Your task to perform on an android device: What's the news in Puerto Rico? Image 0: 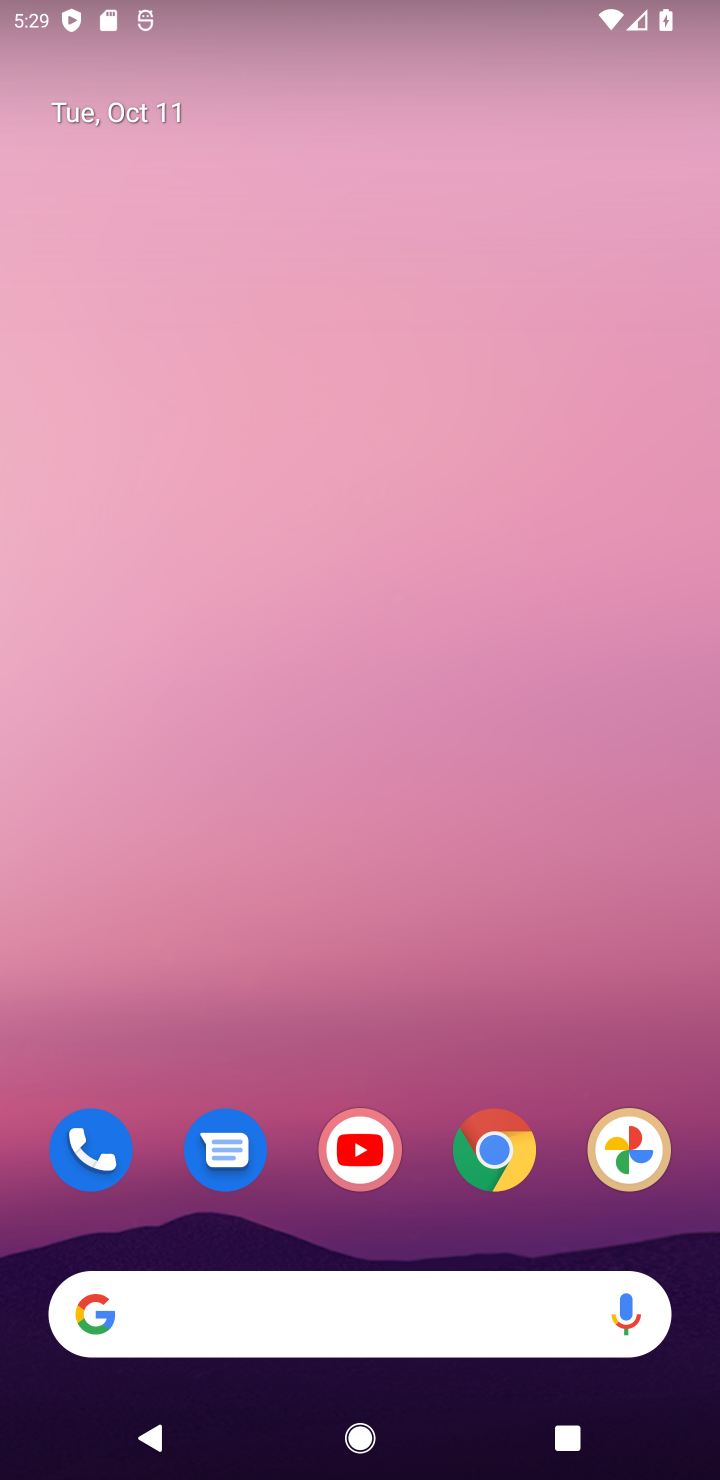
Step 0: click (493, 1170)
Your task to perform on an android device: What's the news in Puerto Rico? Image 1: 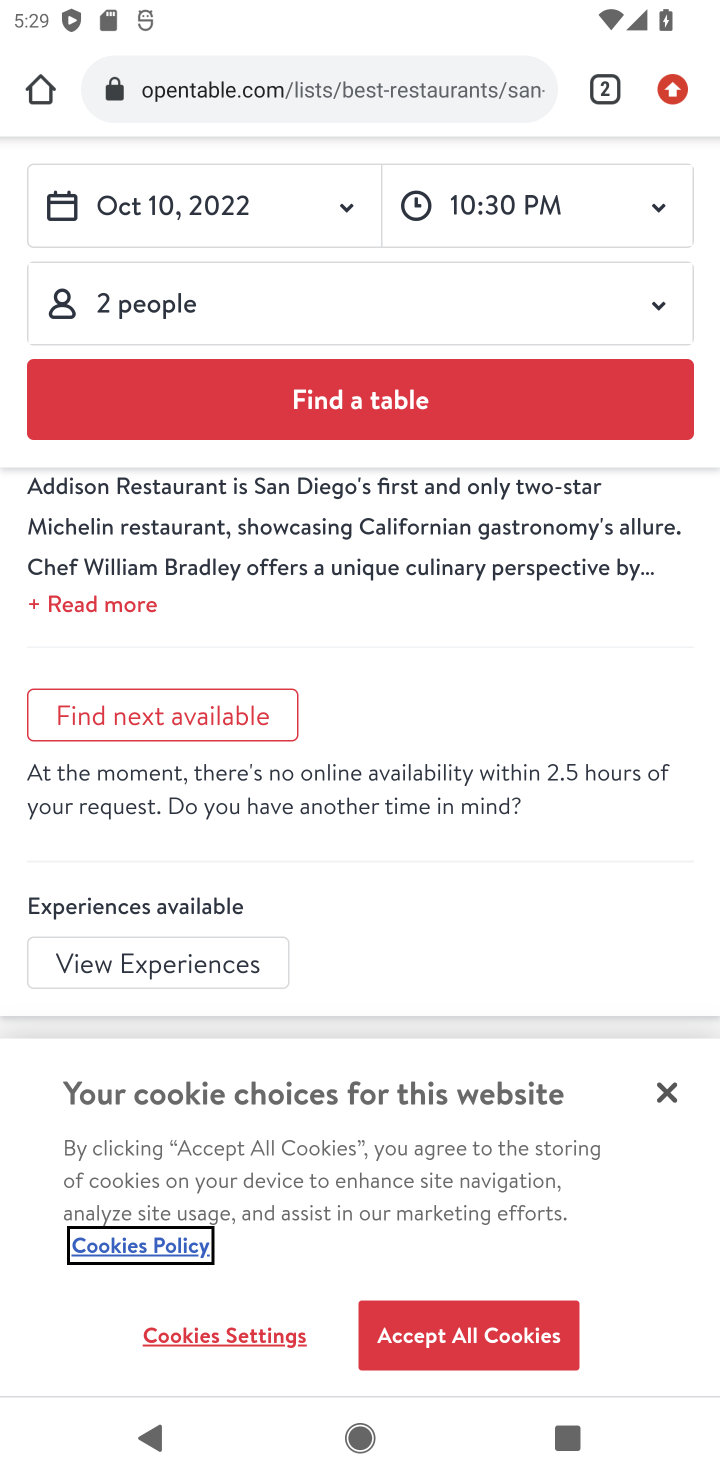
Step 1: click (274, 89)
Your task to perform on an android device: What's the news in Puerto Rico? Image 2: 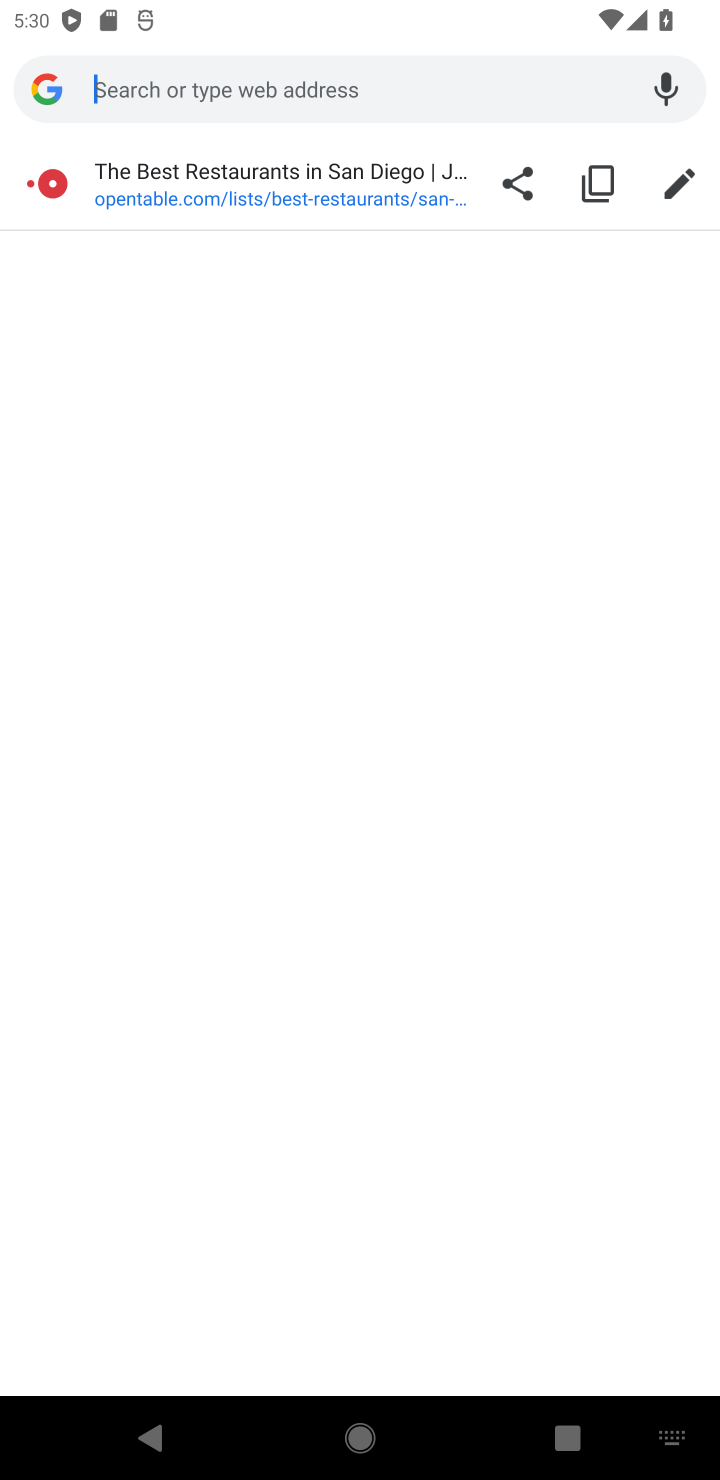
Step 2: type "Puerto Rico news"
Your task to perform on an android device: What's the news in Puerto Rico? Image 3: 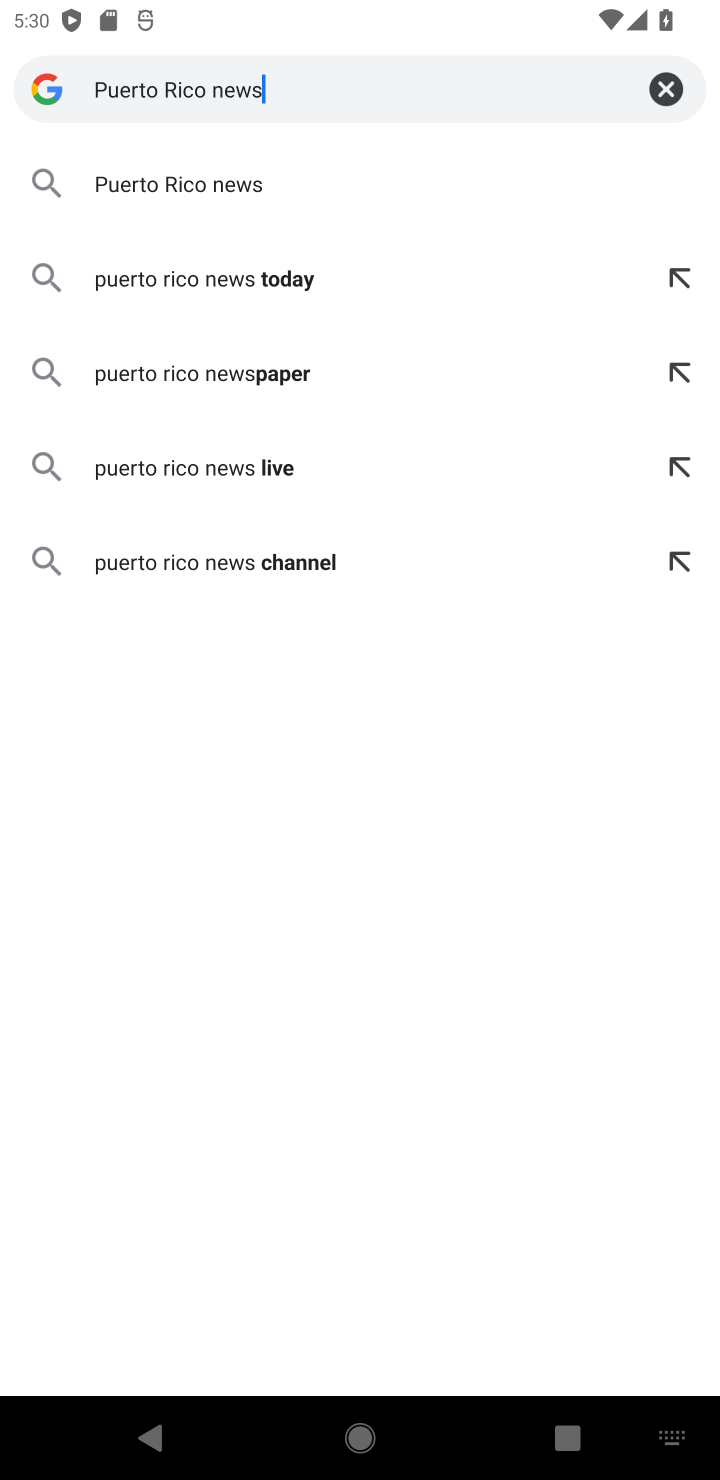
Step 3: click (183, 185)
Your task to perform on an android device: What's the news in Puerto Rico? Image 4: 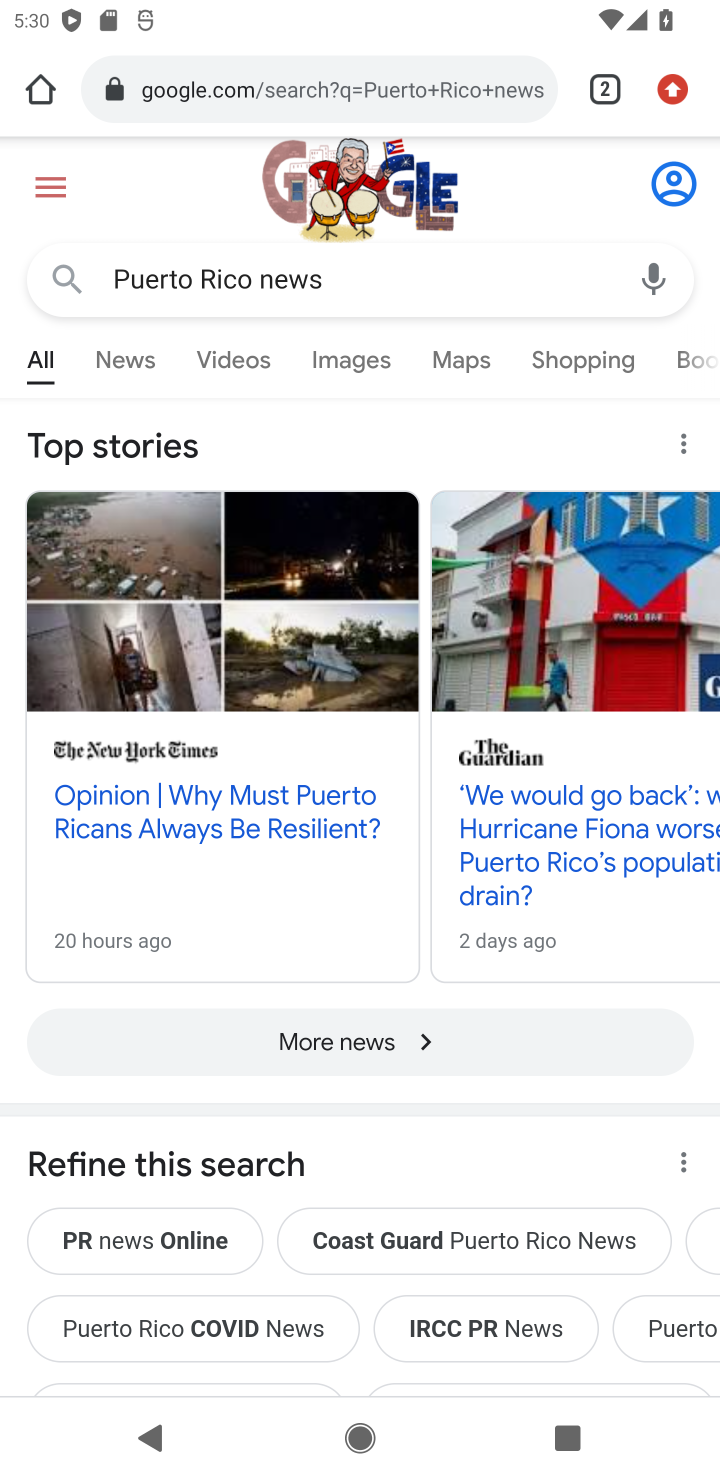
Step 4: click (111, 370)
Your task to perform on an android device: What's the news in Puerto Rico? Image 5: 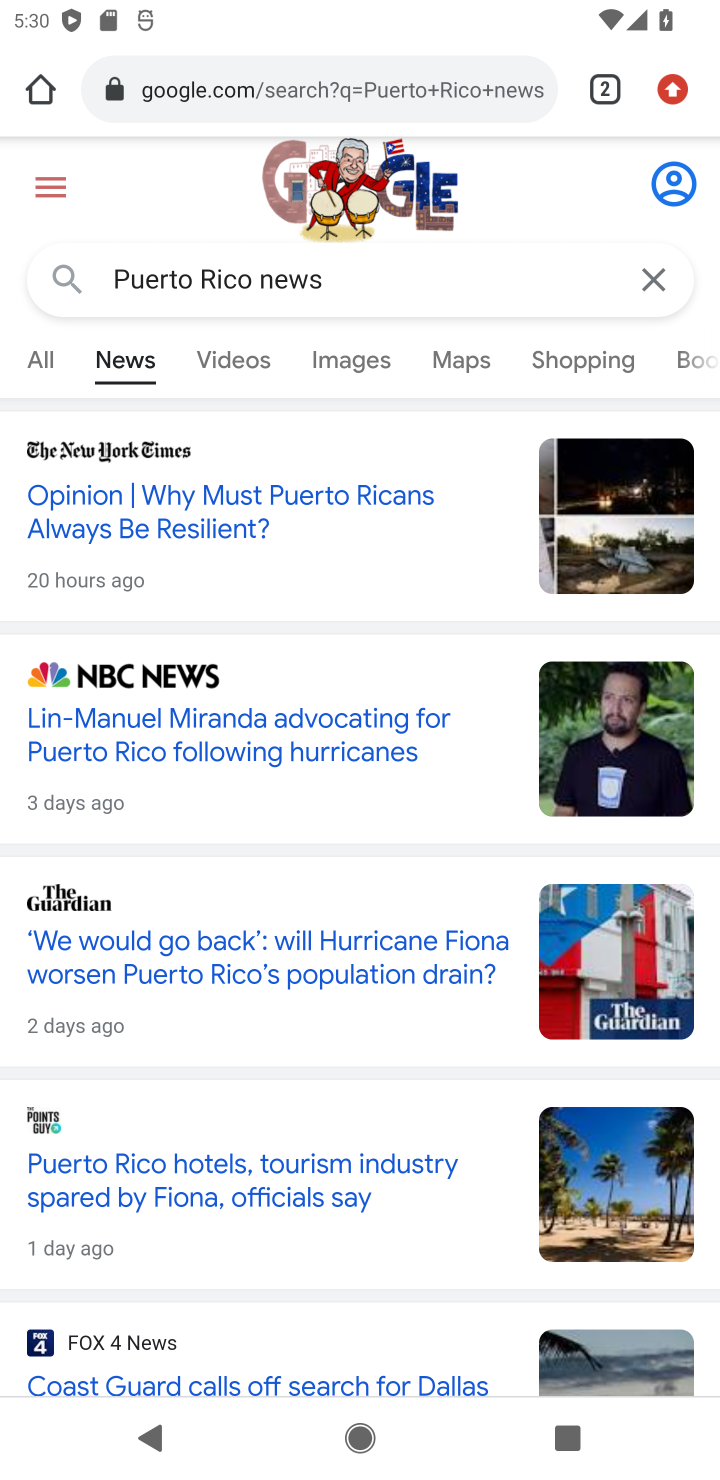
Step 5: click (196, 743)
Your task to perform on an android device: What's the news in Puerto Rico? Image 6: 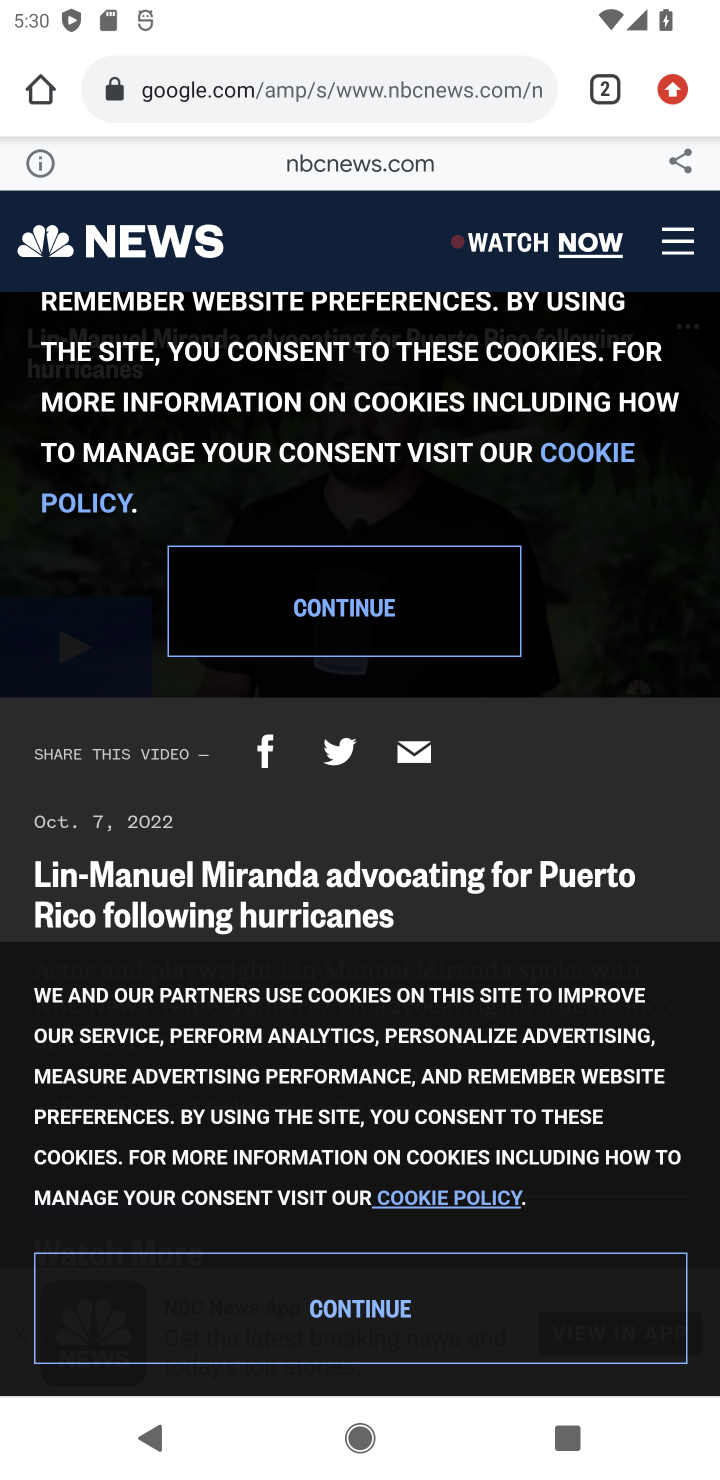
Step 6: task complete